Your task to perform on an android device: add a label to a message in the gmail app Image 0: 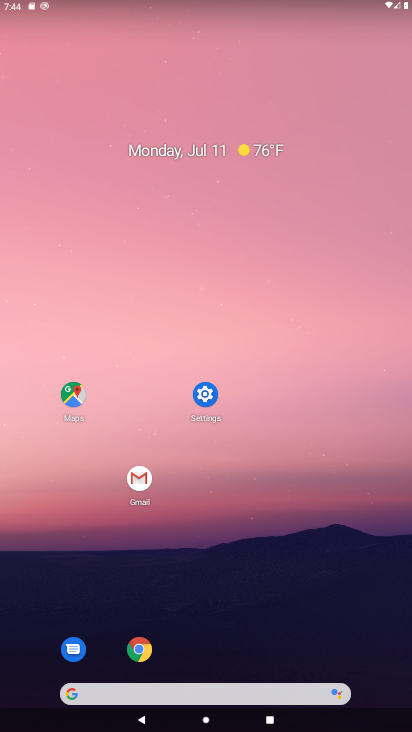
Step 0: click (133, 479)
Your task to perform on an android device: add a label to a message in the gmail app Image 1: 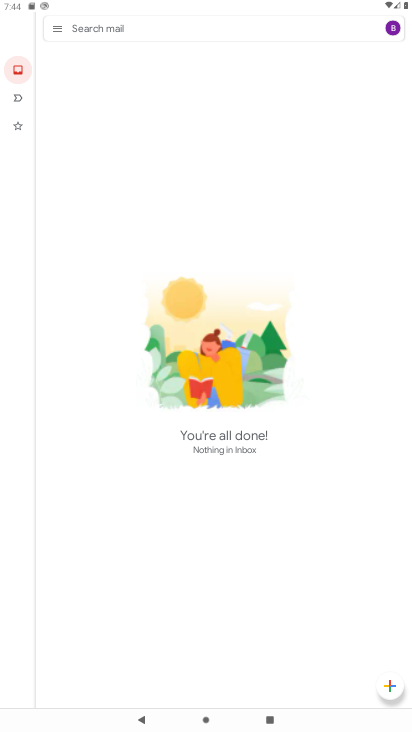
Step 1: task complete